Your task to perform on an android device: open a bookmark in the chrome app Image 0: 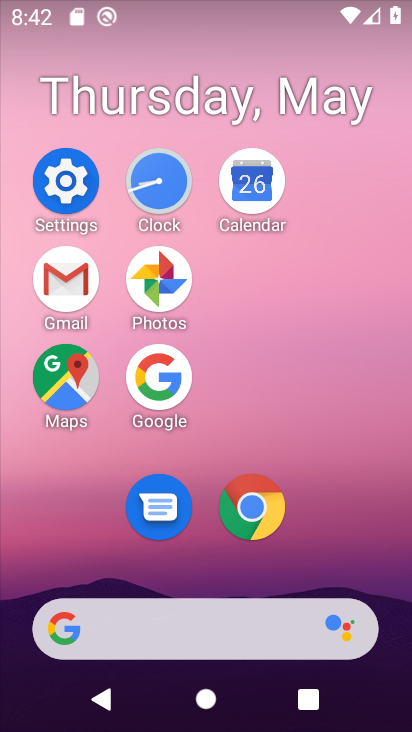
Step 0: click (273, 493)
Your task to perform on an android device: open a bookmark in the chrome app Image 1: 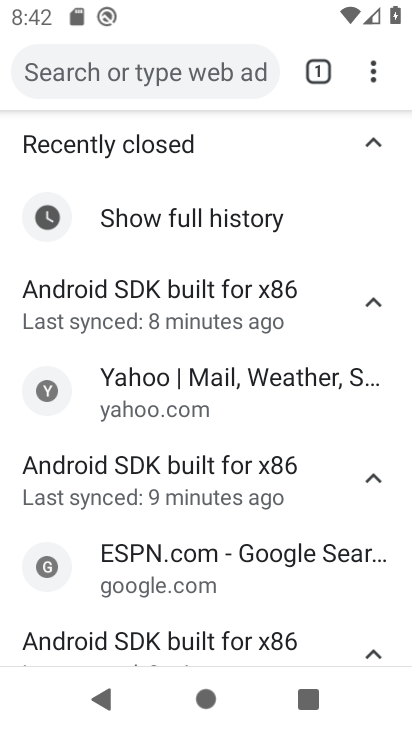
Step 1: click (379, 73)
Your task to perform on an android device: open a bookmark in the chrome app Image 2: 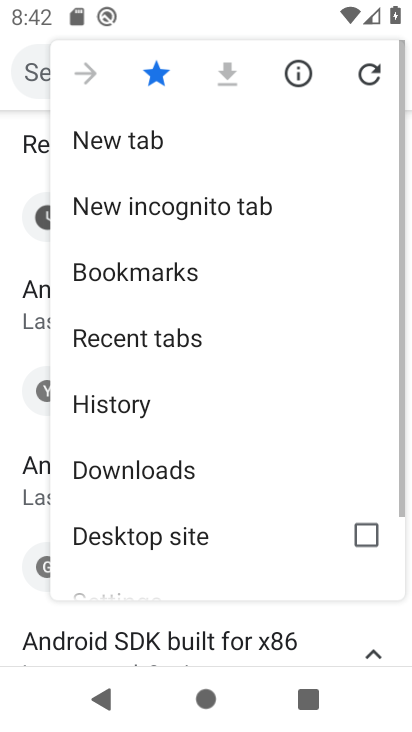
Step 2: click (214, 282)
Your task to perform on an android device: open a bookmark in the chrome app Image 3: 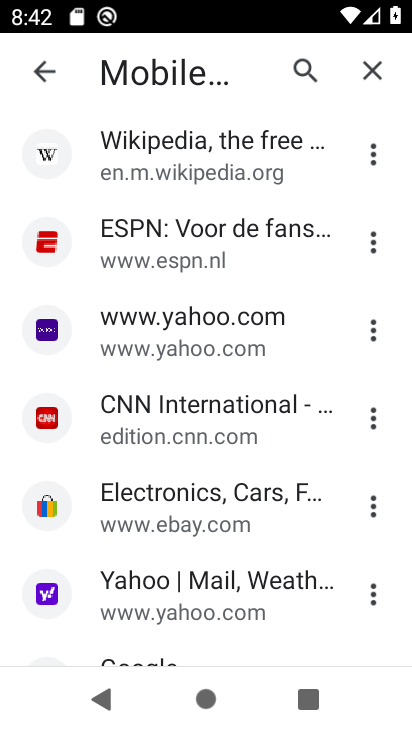
Step 3: task complete